Your task to perform on an android device: Toggle the flashlight Image 0: 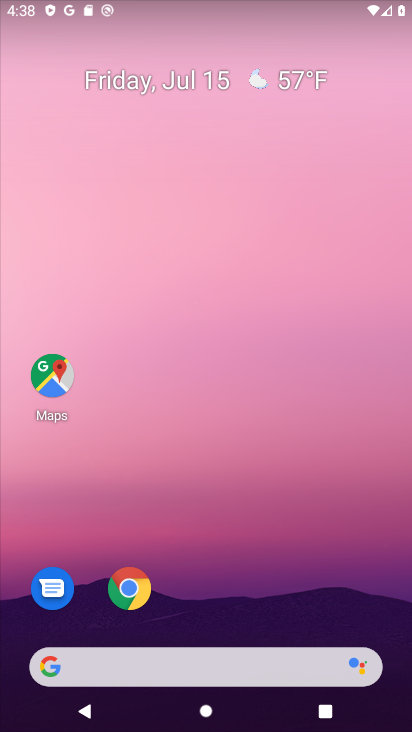
Step 0: drag from (177, 5) to (186, 420)
Your task to perform on an android device: Toggle the flashlight Image 1: 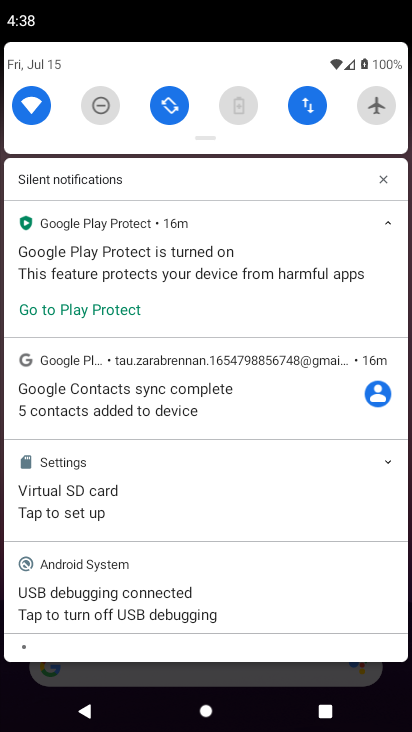
Step 1: task complete